Your task to perform on an android device: Open Chrome and go to settings Image 0: 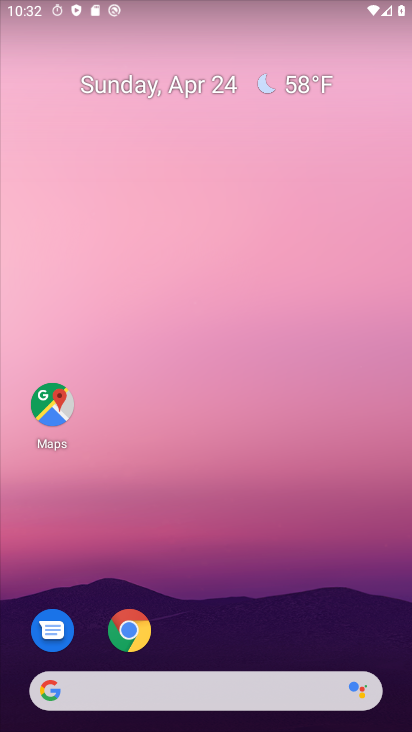
Step 0: drag from (270, 529) to (338, 107)
Your task to perform on an android device: Open Chrome and go to settings Image 1: 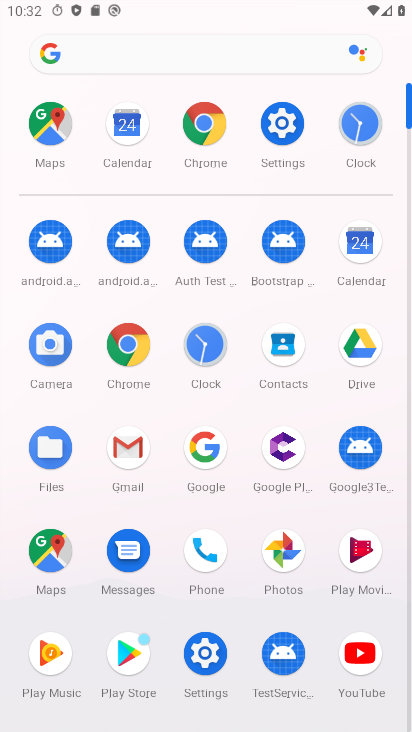
Step 1: click (283, 147)
Your task to perform on an android device: Open Chrome and go to settings Image 2: 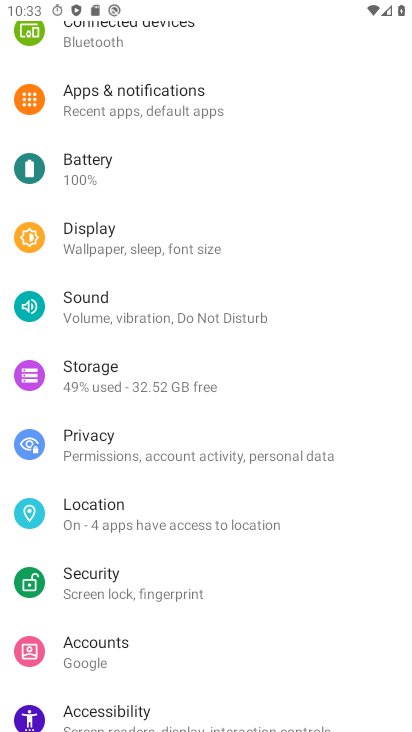
Step 2: press home button
Your task to perform on an android device: Open Chrome and go to settings Image 3: 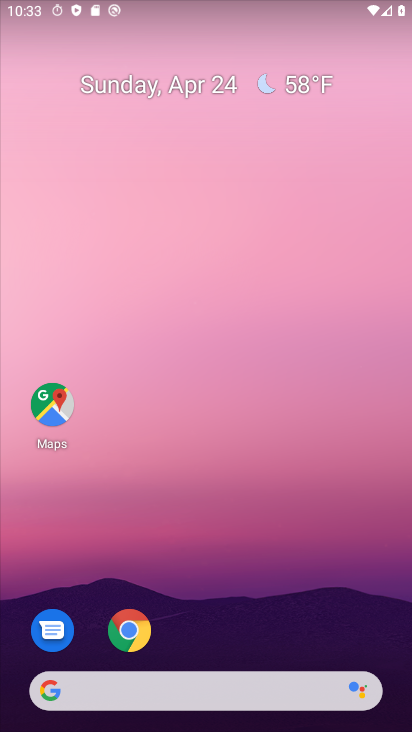
Step 3: click (142, 631)
Your task to perform on an android device: Open Chrome and go to settings Image 4: 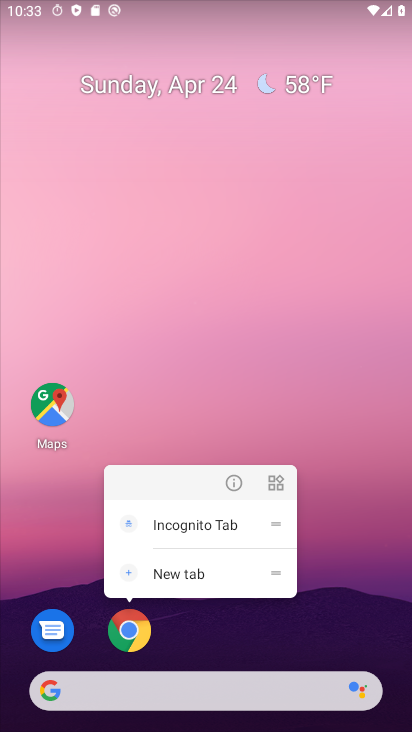
Step 4: click (125, 622)
Your task to perform on an android device: Open Chrome and go to settings Image 5: 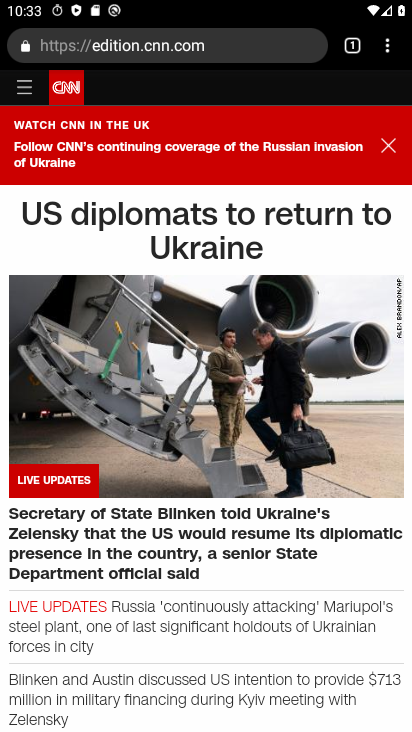
Step 5: click (385, 51)
Your task to perform on an android device: Open Chrome and go to settings Image 6: 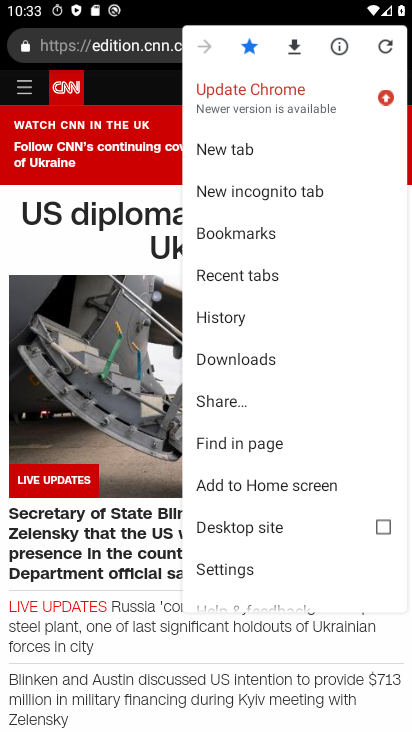
Step 6: click (265, 571)
Your task to perform on an android device: Open Chrome and go to settings Image 7: 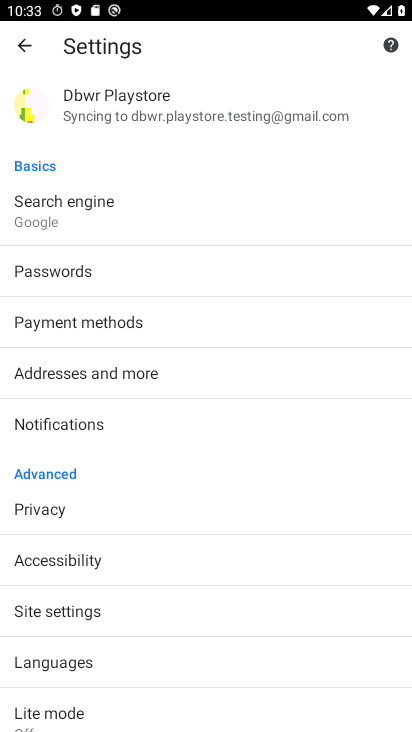
Step 7: task complete